Your task to perform on an android device: turn on priority inbox in the gmail app Image 0: 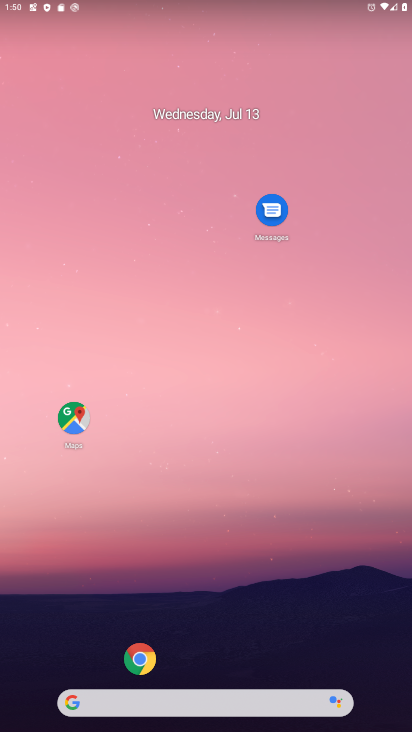
Step 0: drag from (23, 670) to (285, 12)
Your task to perform on an android device: turn on priority inbox in the gmail app Image 1: 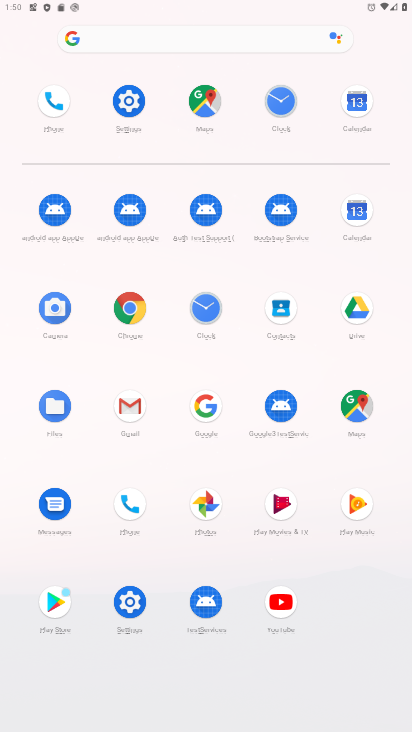
Step 1: click (132, 445)
Your task to perform on an android device: turn on priority inbox in the gmail app Image 2: 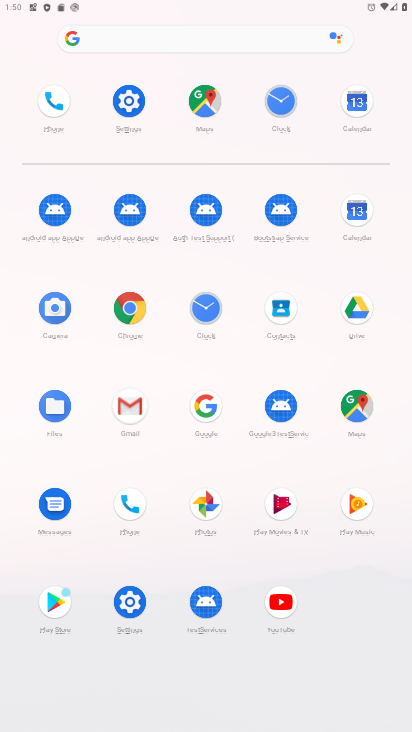
Step 2: click (130, 412)
Your task to perform on an android device: turn on priority inbox in the gmail app Image 3: 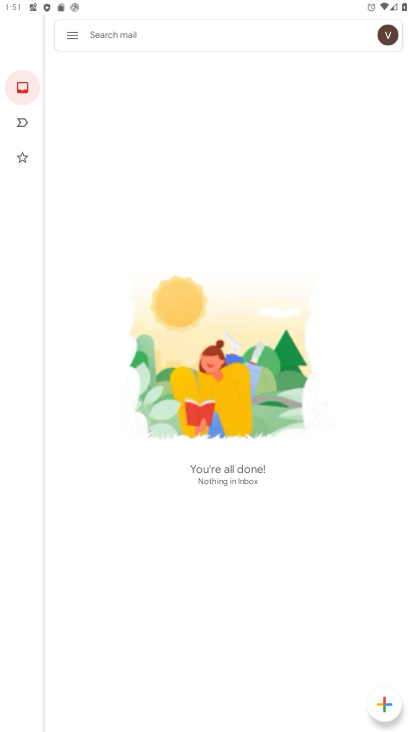
Step 3: click (71, 36)
Your task to perform on an android device: turn on priority inbox in the gmail app Image 4: 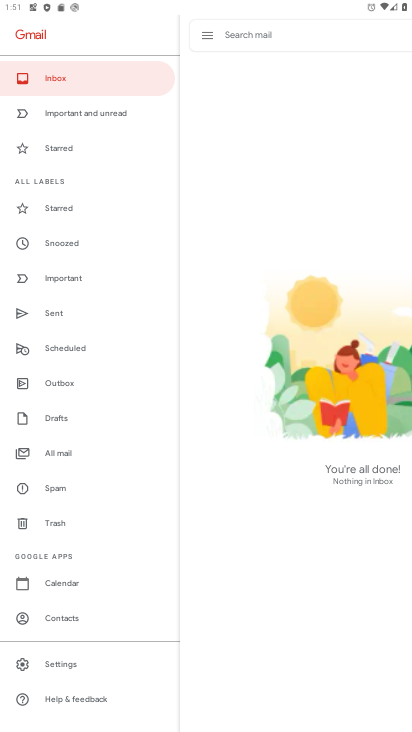
Step 4: click (88, 666)
Your task to perform on an android device: turn on priority inbox in the gmail app Image 5: 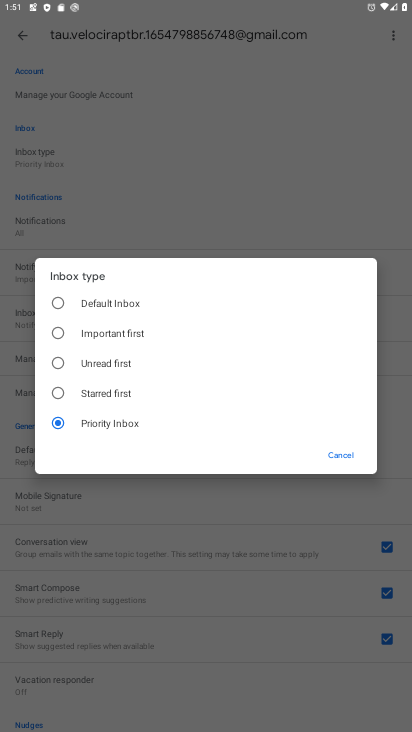
Step 5: task complete